Your task to perform on an android device: toggle translation in the chrome app Image 0: 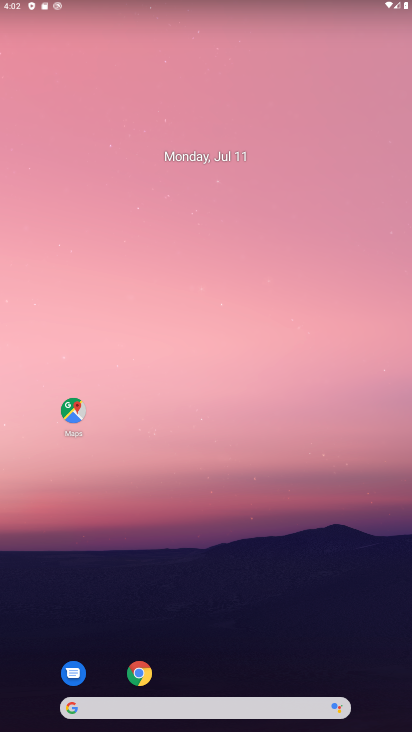
Step 0: drag from (350, 592) to (320, 82)
Your task to perform on an android device: toggle translation in the chrome app Image 1: 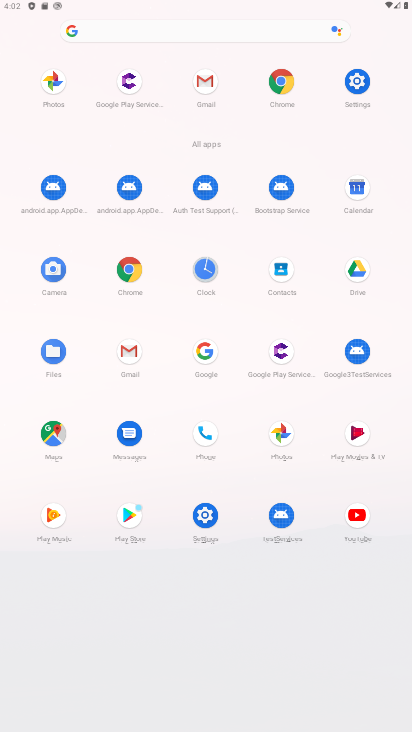
Step 1: click (286, 76)
Your task to perform on an android device: toggle translation in the chrome app Image 2: 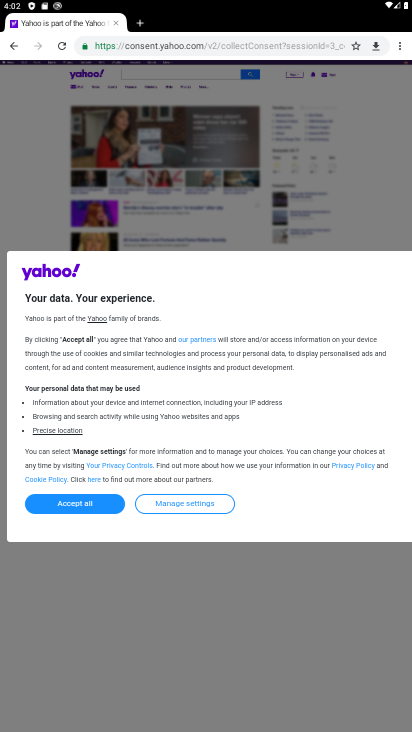
Step 2: drag from (403, 43) to (320, 309)
Your task to perform on an android device: toggle translation in the chrome app Image 3: 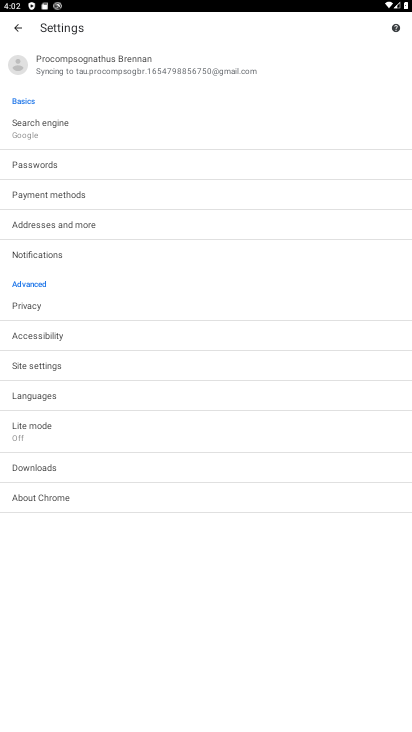
Step 3: click (50, 388)
Your task to perform on an android device: toggle translation in the chrome app Image 4: 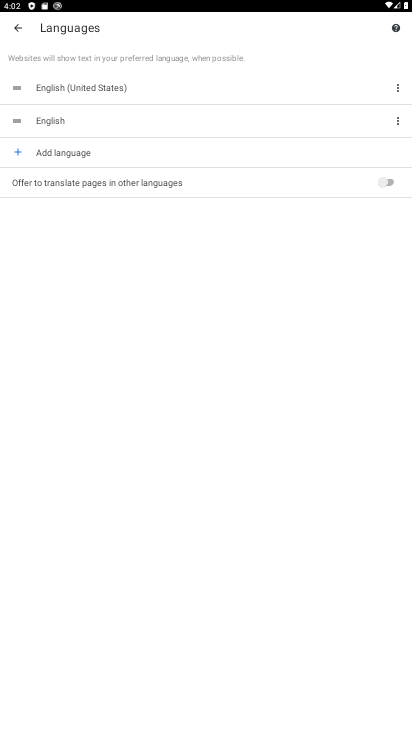
Step 4: click (392, 183)
Your task to perform on an android device: toggle translation in the chrome app Image 5: 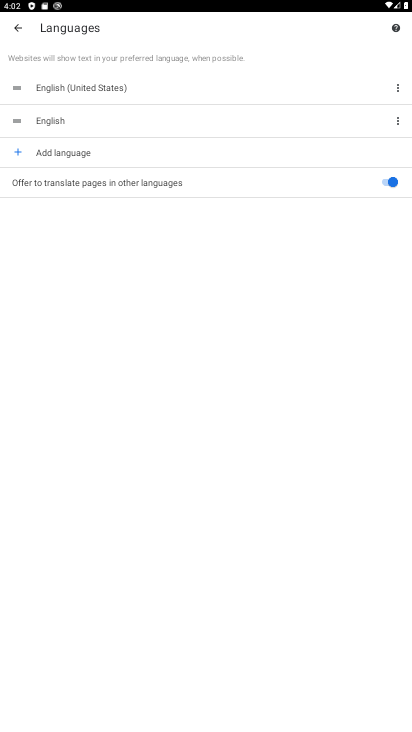
Step 5: task complete